Your task to perform on an android device: turn off priority inbox in the gmail app Image 0: 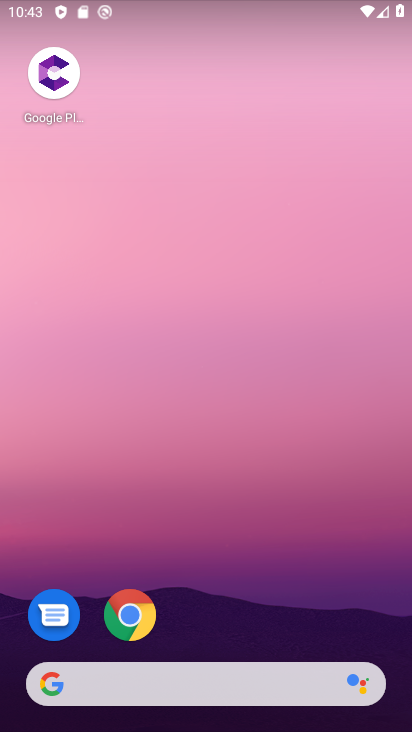
Step 0: drag from (302, 575) to (278, 286)
Your task to perform on an android device: turn off priority inbox in the gmail app Image 1: 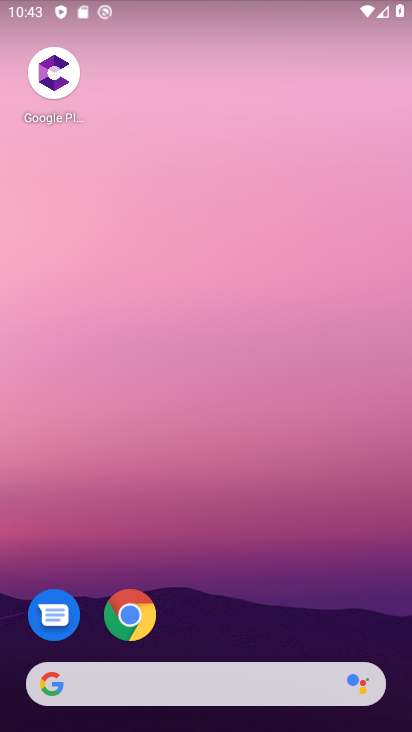
Step 1: drag from (256, 600) to (270, 176)
Your task to perform on an android device: turn off priority inbox in the gmail app Image 2: 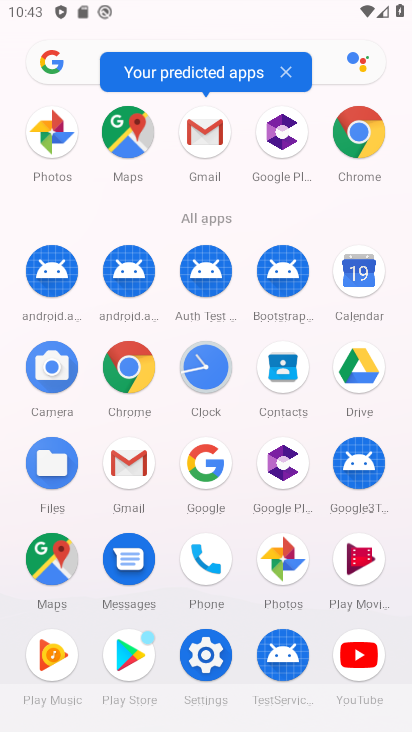
Step 2: click (204, 158)
Your task to perform on an android device: turn off priority inbox in the gmail app Image 3: 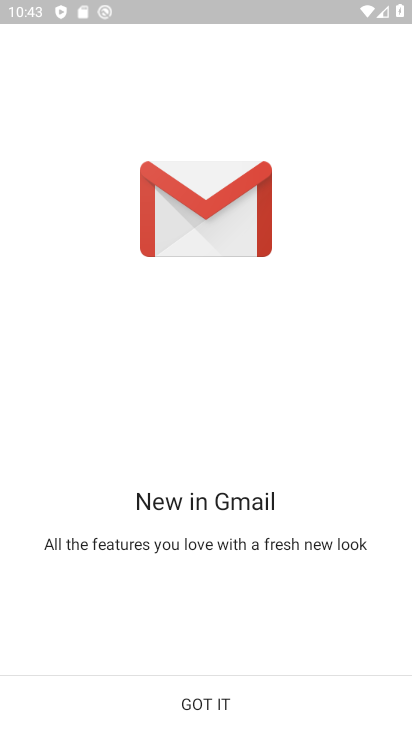
Step 3: click (238, 691)
Your task to perform on an android device: turn off priority inbox in the gmail app Image 4: 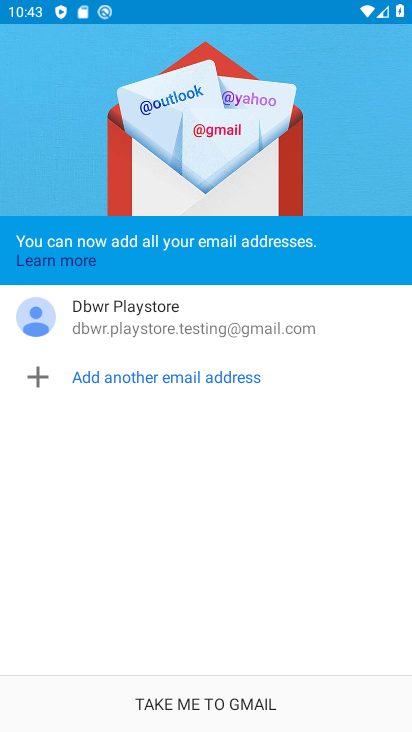
Step 4: click (237, 696)
Your task to perform on an android device: turn off priority inbox in the gmail app Image 5: 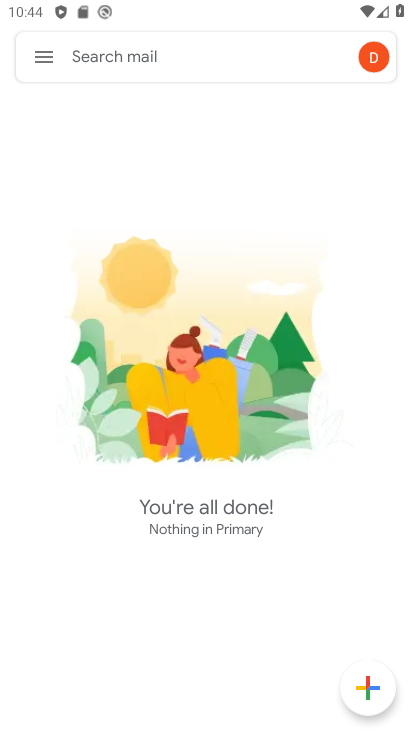
Step 5: click (32, 64)
Your task to perform on an android device: turn off priority inbox in the gmail app Image 6: 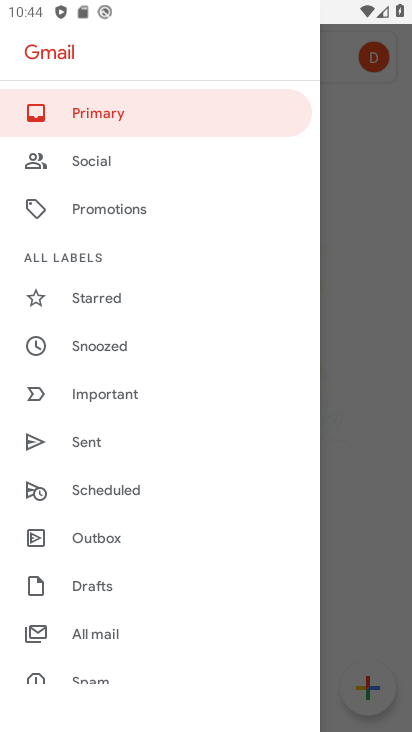
Step 6: drag from (227, 579) to (177, 381)
Your task to perform on an android device: turn off priority inbox in the gmail app Image 7: 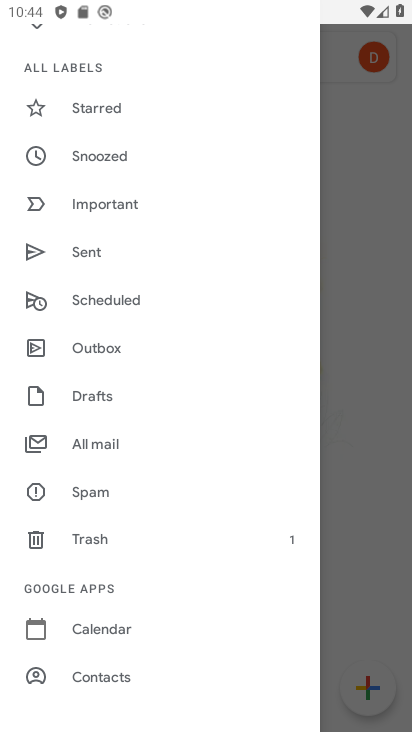
Step 7: drag from (167, 649) to (141, 368)
Your task to perform on an android device: turn off priority inbox in the gmail app Image 8: 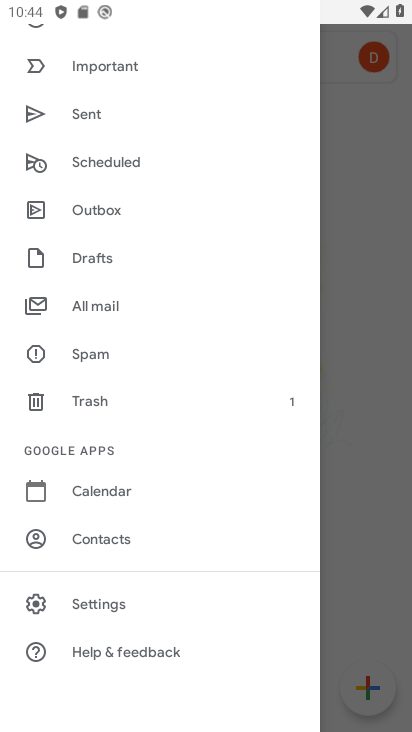
Step 8: click (121, 592)
Your task to perform on an android device: turn off priority inbox in the gmail app Image 9: 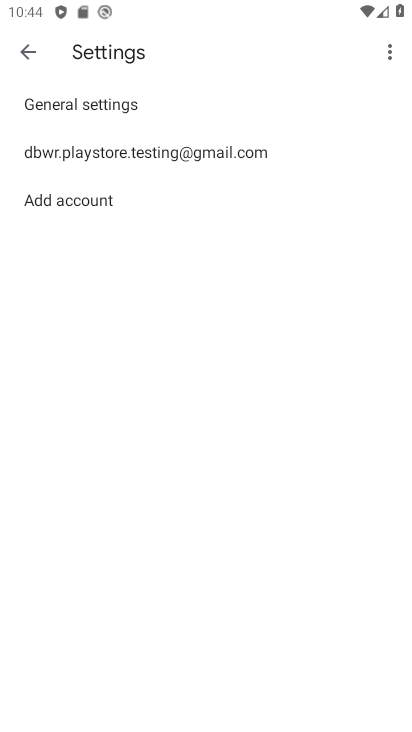
Step 9: click (111, 150)
Your task to perform on an android device: turn off priority inbox in the gmail app Image 10: 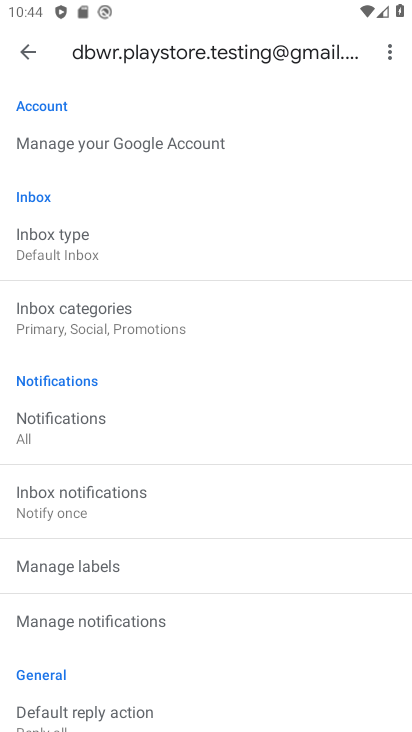
Step 10: click (119, 252)
Your task to perform on an android device: turn off priority inbox in the gmail app Image 11: 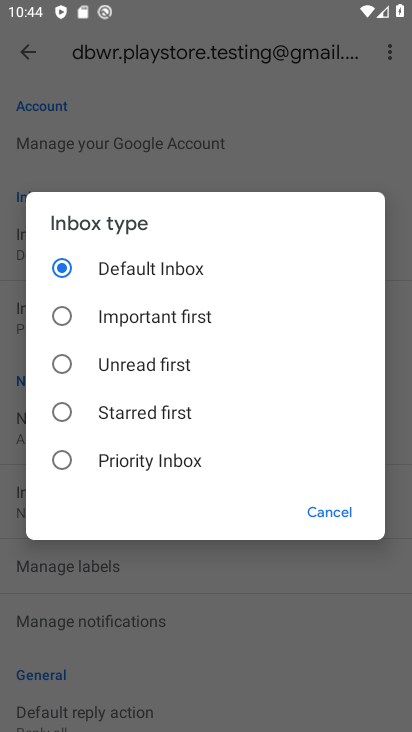
Step 11: task complete